Your task to perform on an android device: Go to Reddit.com Image 0: 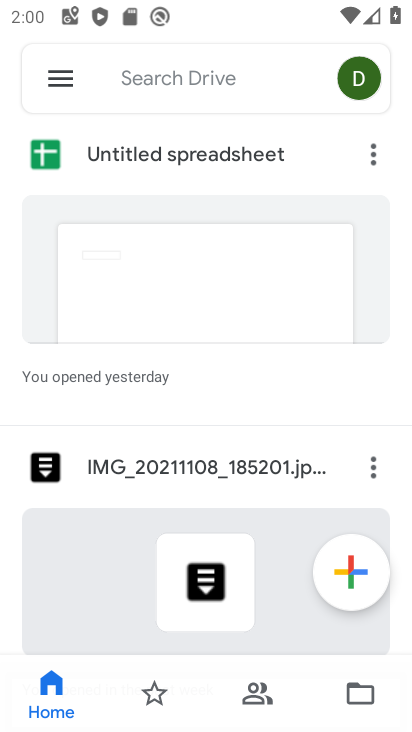
Step 0: press home button
Your task to perform on an android device: Go to Reddit.com Image 1: 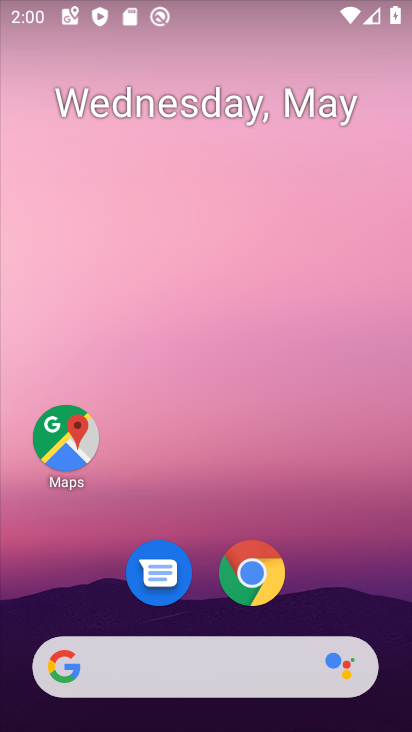
Step 1: click (263, 561)
Your task to perform on an android device: Go to Reddit.com Image 2: 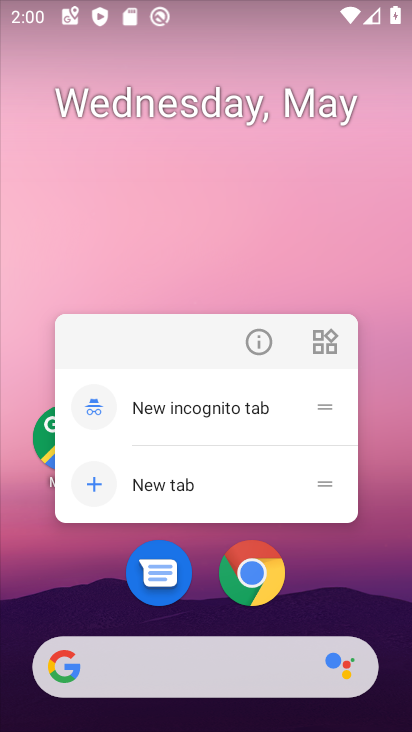
Step 2: click (263, 561)
Your task to perform on an android device: Go to Reddit.com Image 3: 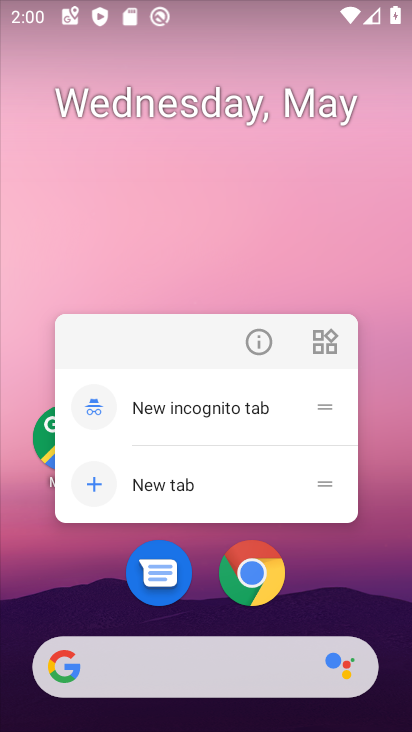
Step 3: click (264, 562)
Your task to perform on an android device: Go to Reddit.com Image 4: 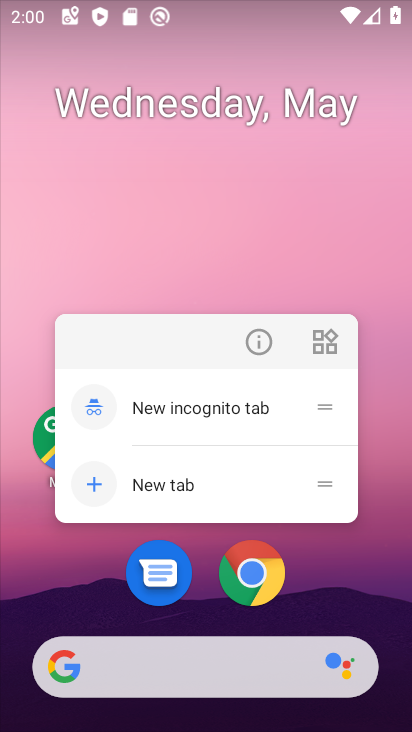
Step 4: click (256, 578)
Your task to perform on an android device: Go to Reddit.com Image 5: 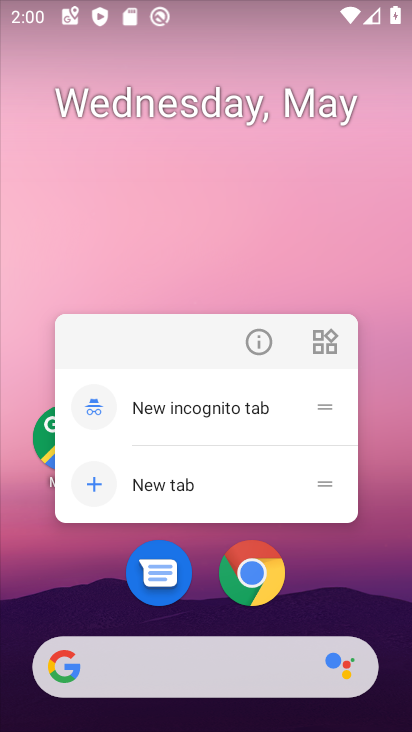
Step 5: click (256, 578)
Your task to perform on an android device: Go to Reddit.com Image 6: 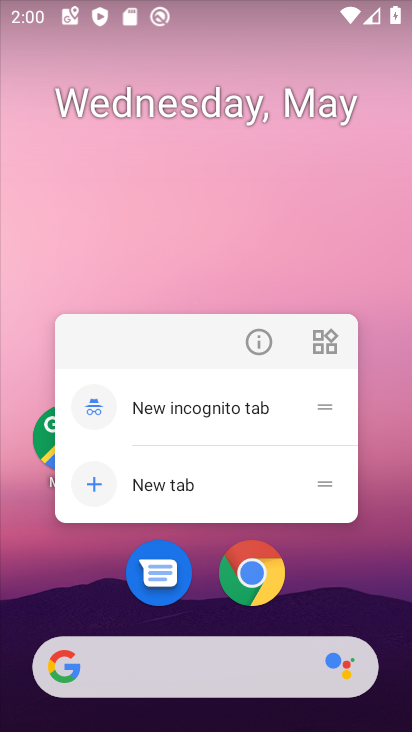
Step 6: click (256, 571)
Your task to perform on an android device: Go to Reddit.com Image 7: 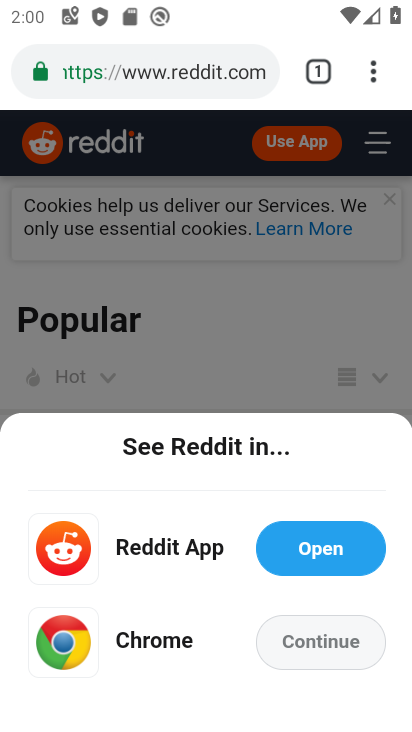
Step 7: task complete